Your task to perform on an android device: change notification settings in the gmail app Image 0: 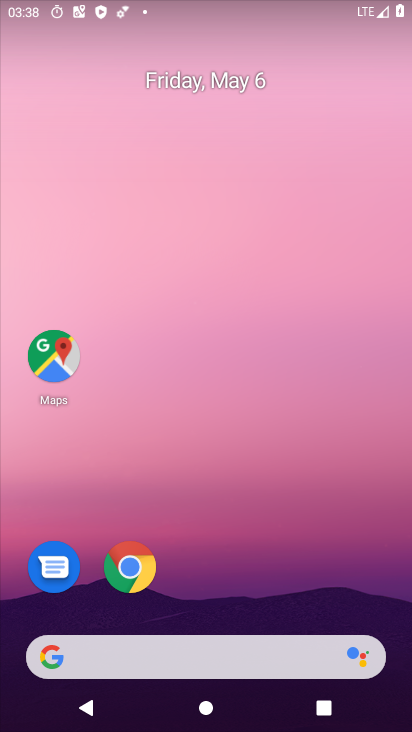
Step 0: drag from (202, 594) to (228, 164)
Your task to perform on an android device: change notification settings in the gmail app Image 1: 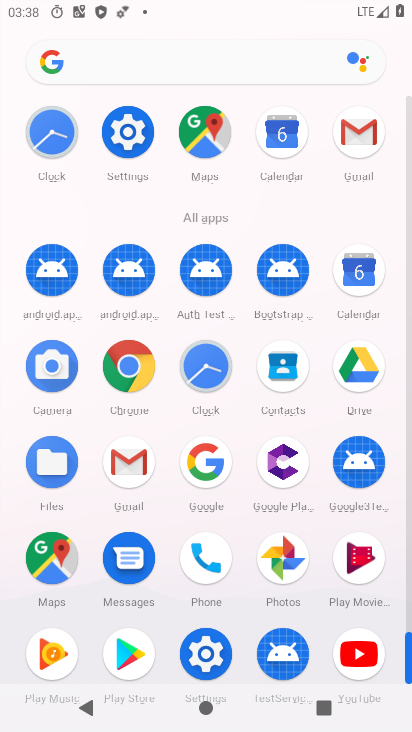
Step 1: click (363, 147)
Your task to perform on an android device: change notification settings in the gmail app Image 2: 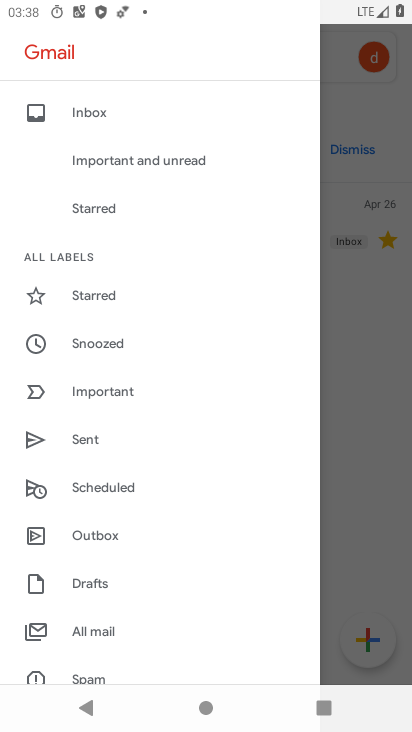
Step 2: drag from (107, 629) to (133, 253)
Your task to perform on an android device: change notification settings in the gmail app Image 3: 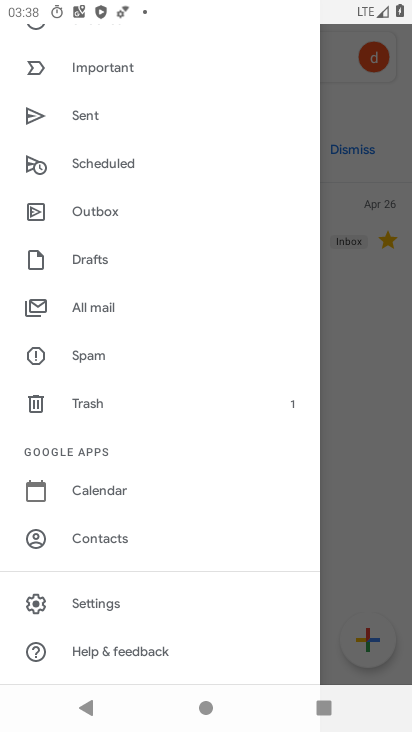
Step 3: click (98, 616)
Your task to perform on an android device: change notification settings in the gmail app Image 4: 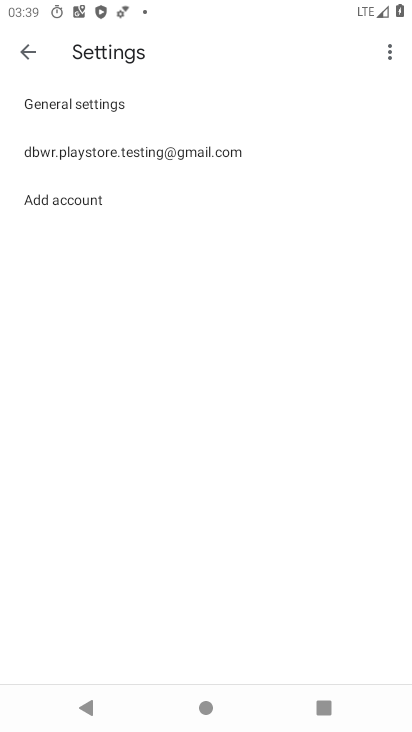
Step 4: click (132, 149)
Your task to perform on an android device: change notification settings in the gmail app Image 5: 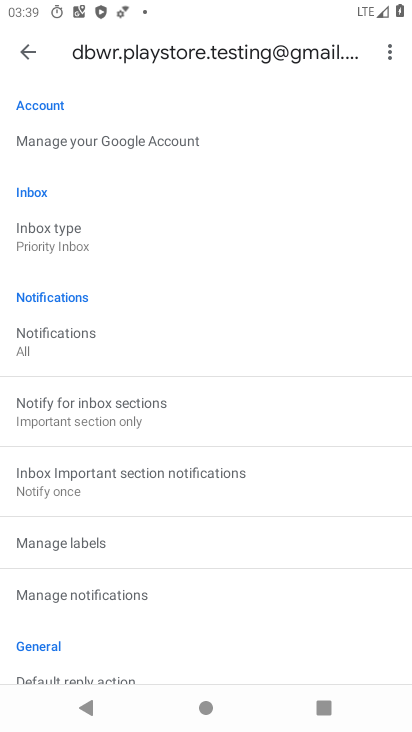
Step 5: click (63, 347)
Your task to perform on an android device: change notification settings in the gmail app Image 6: 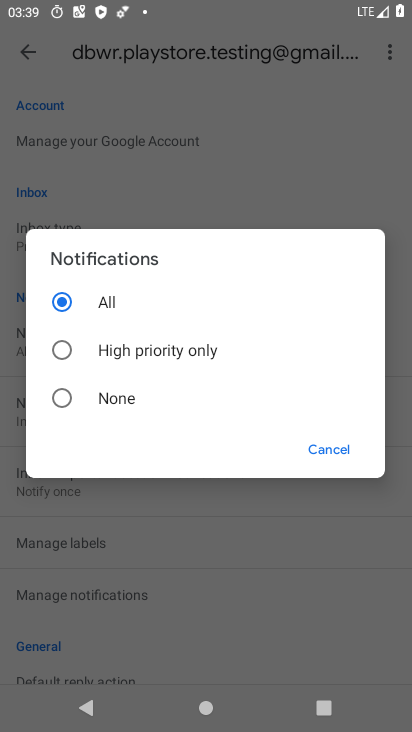
Step 6: click (69, 396)
Your task to perform on an android device: change notification settings in the gmail app Image 7: 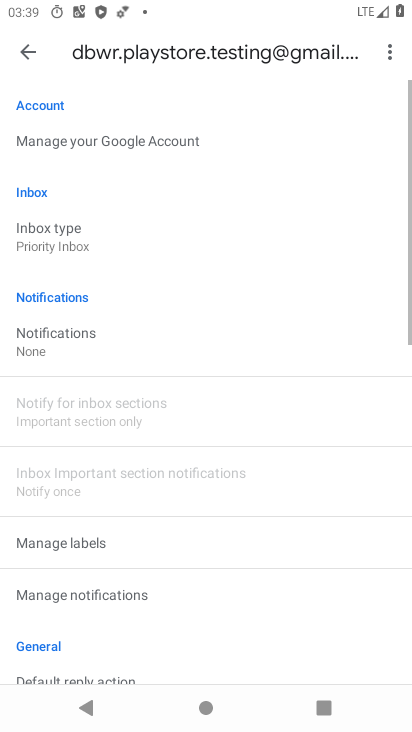
Step 7: task complete